Your task to perform on an android device: Go to location settings Image 0: 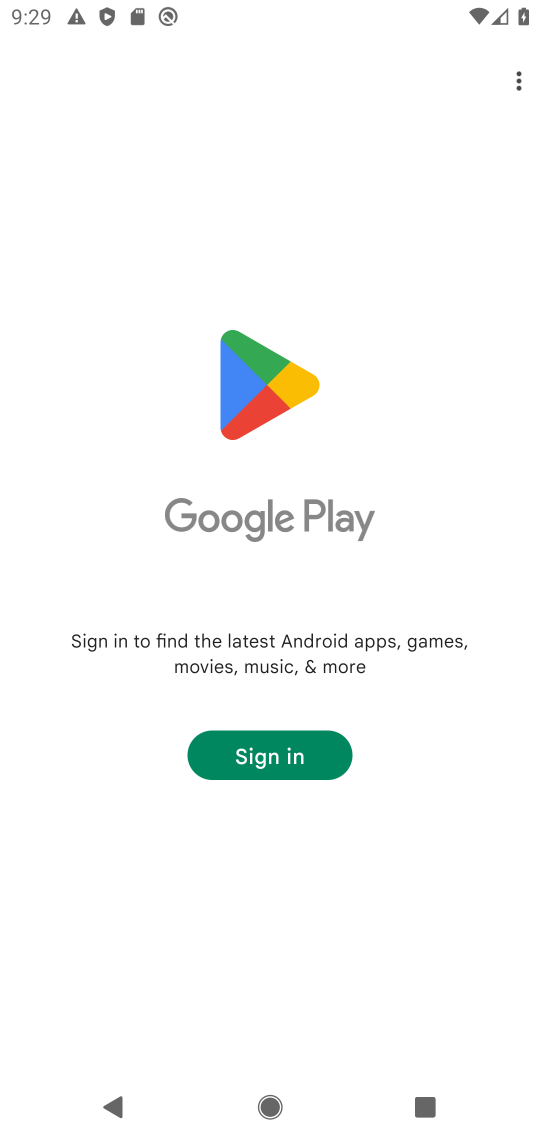
Step 0: press home button
Your task to perform on an android device: Go to location settings Image 1: 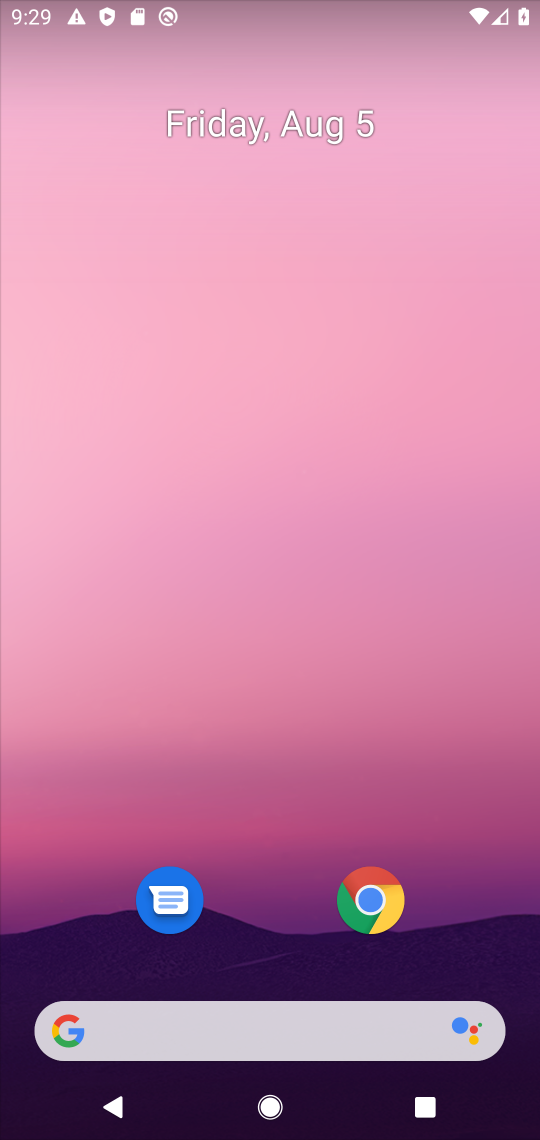
Step 1: drag from (304, 607) to (300, 322)
Your task to perform on an android device: Go to location settings Image 2: 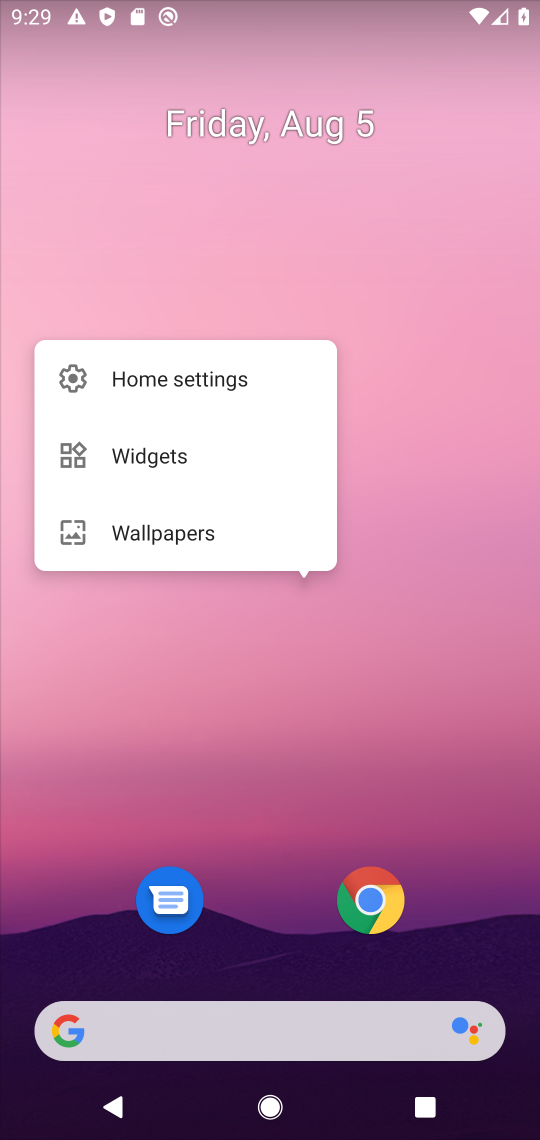
Step 2: drag from (489, 497) to (426, 229)
Your task to perform on an android device: Go to location settings Image 3: 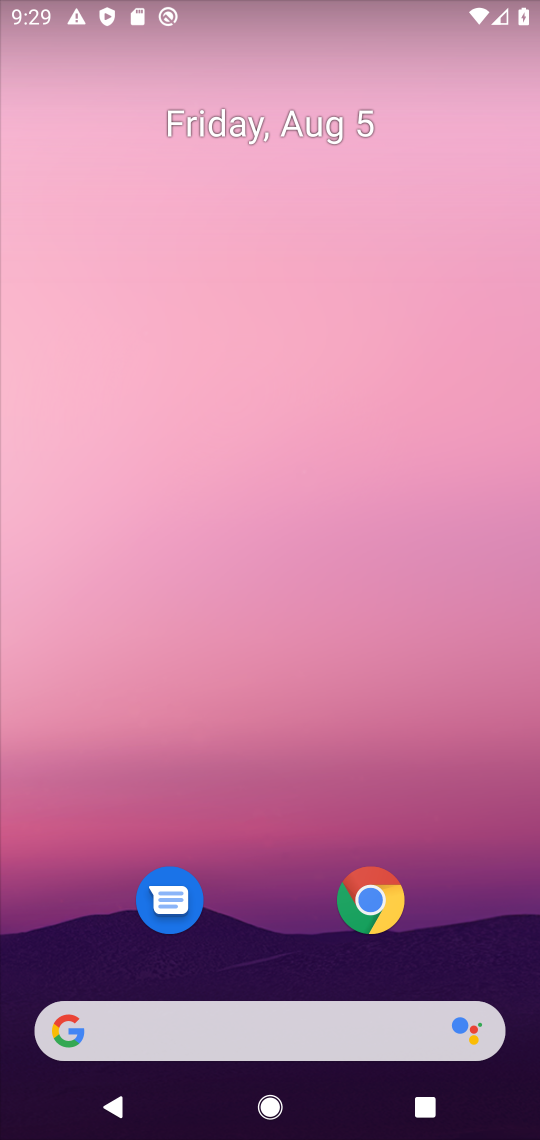
Step 3: drag from (262, 921) to (296, 13)
Your task to perform on an android device: Go to location settings Image 4: 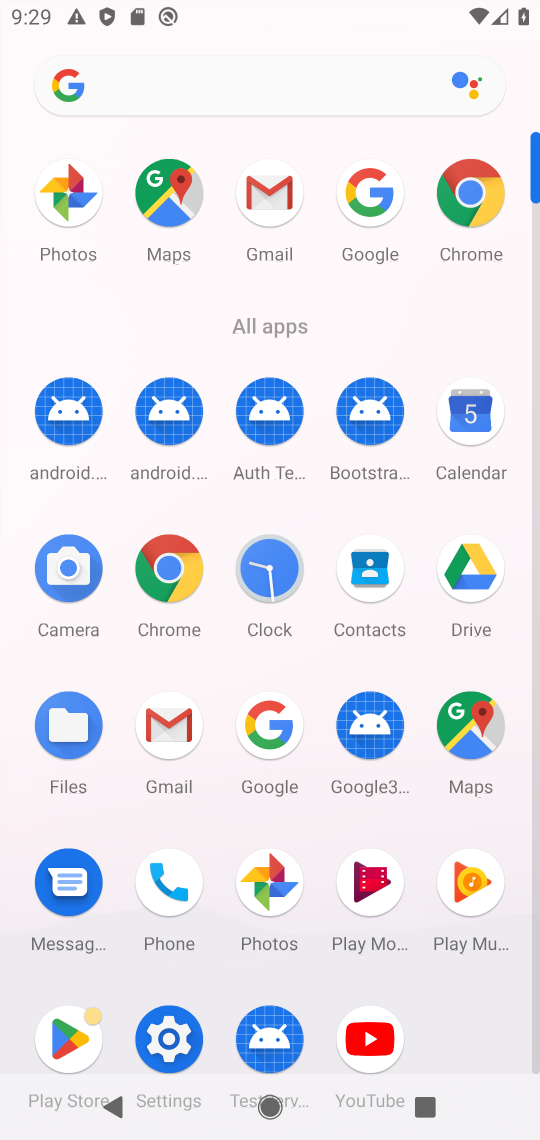
Step 4: click (181, 1051)
Your task to perform on an android device: Go to location settings Image 5: 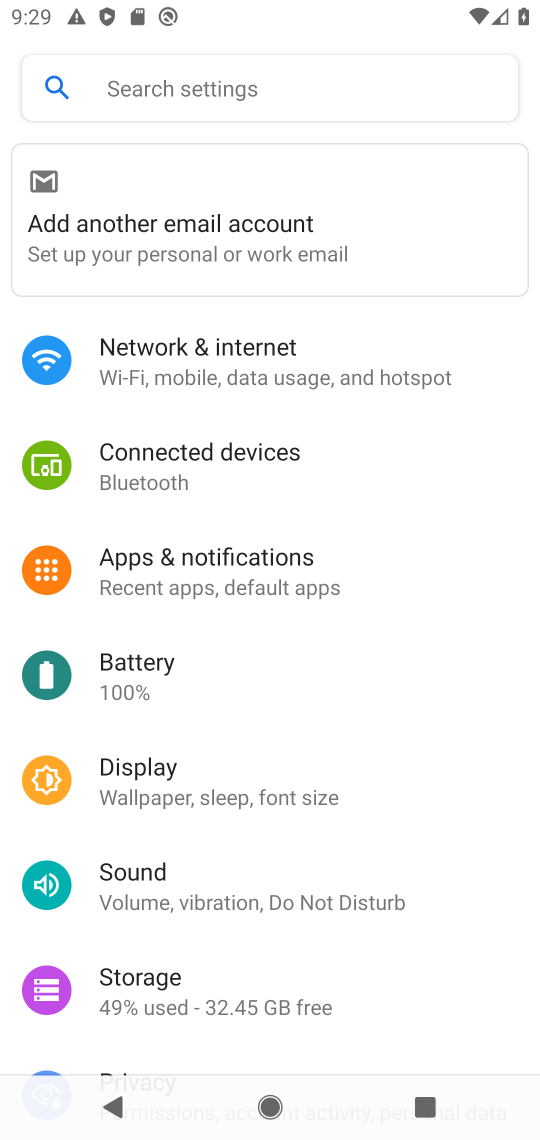
Step 5: drag from (292, 939) to (180, 185)
Your task to perform on an android device: Go to location settings Image 6: 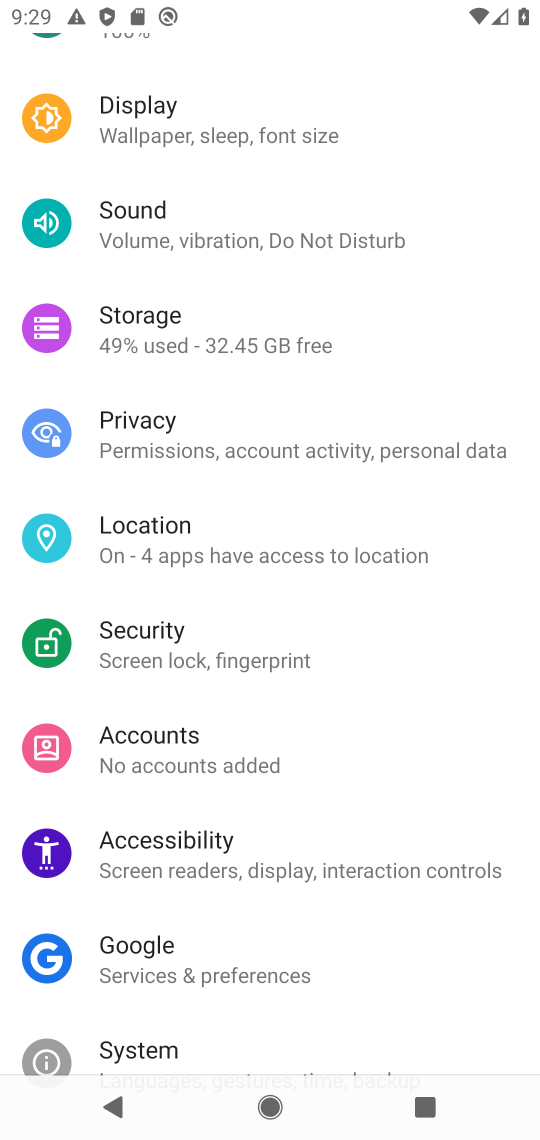
Step 6: click (305, 560)
Your task to perform on an android device: Go to location settings Image 7: 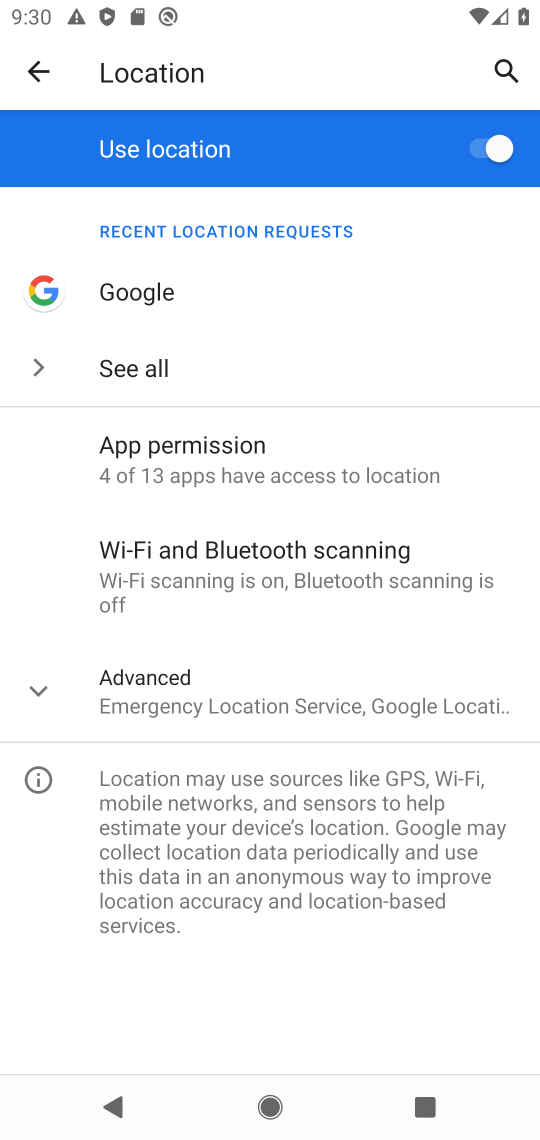
Step 7: task complete